Your task to perform on an android device: Go to Google Image 0: 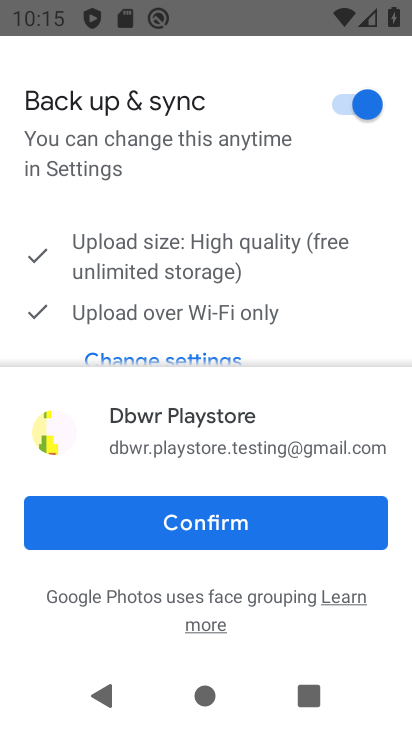
Step 0: press home button
Your task to perform on an android device: Go to Google Image 1: 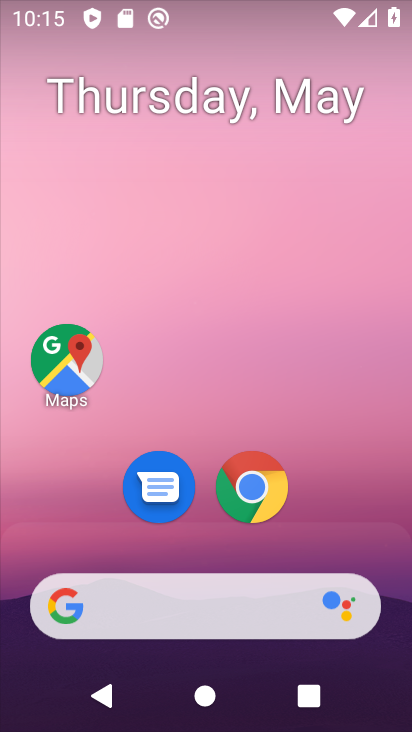
Step 1: drag from (332, 340) to (337, 16)
Your task to perform on an android device: Go to Google Image 2: 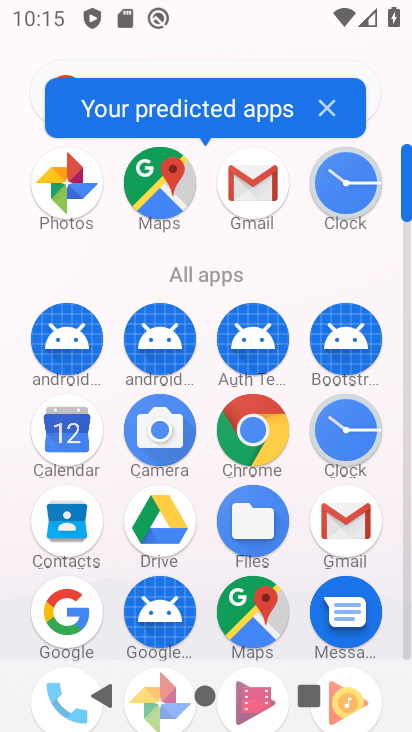
Step 2: click (410, 512)
Your task to perform on an android device: Go to Google Image 3: 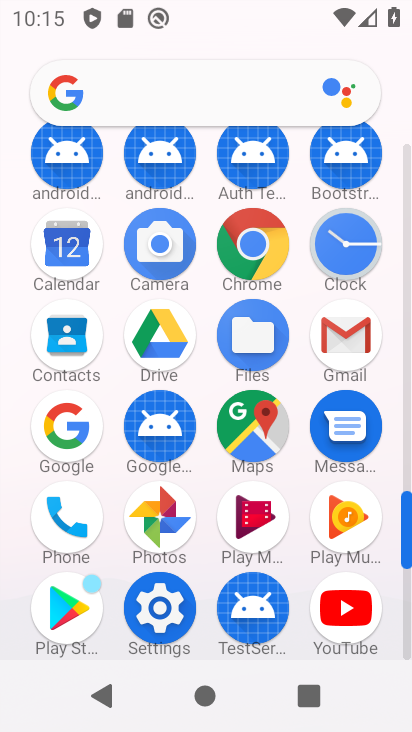
Step 3: click (71, 443)
Your task to perform on an android device: Go to Google Image 4: 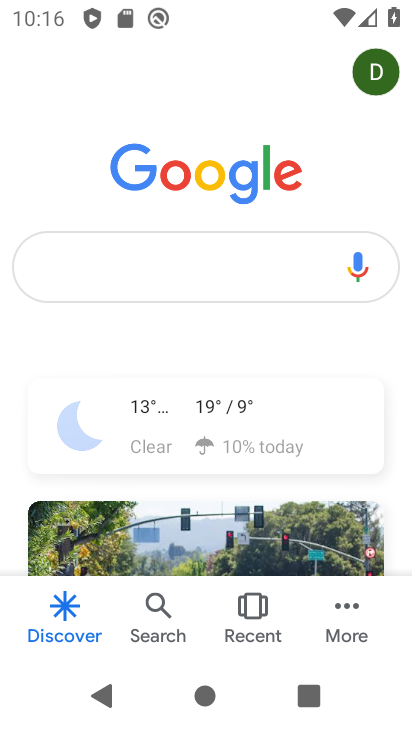
Step 4: task complete